Your task to perform on an android device: check android version Image 0: 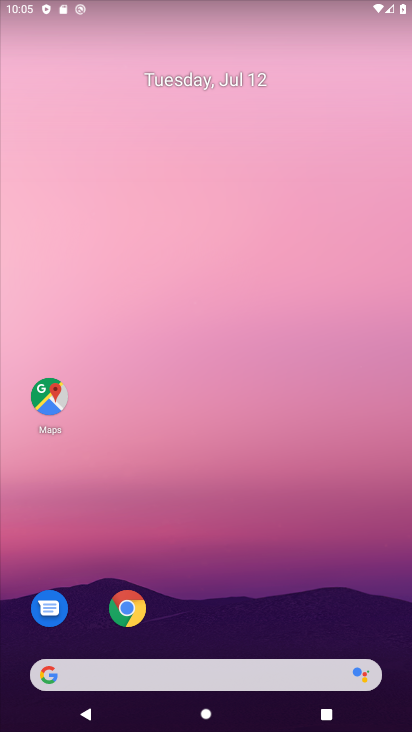
Step 0: drag from (261, 555) to (407, 0)
Your task to perform on an android device: check android version Image 1: 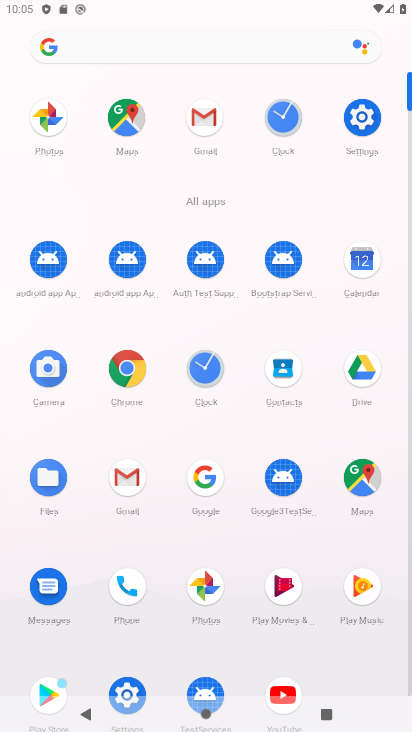
Step 1: click (370, 113)
Your task to perform on an android device: check android version Image 2: 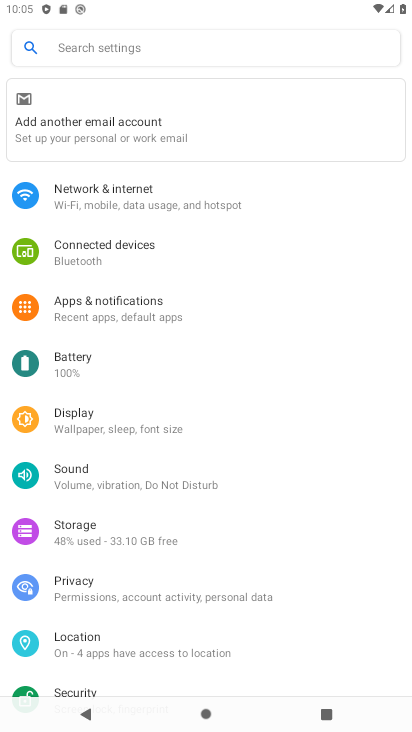
Step 2: drag from (209, 548) to (212, 98)
Your task to perform on an android device: check android version Image 3: 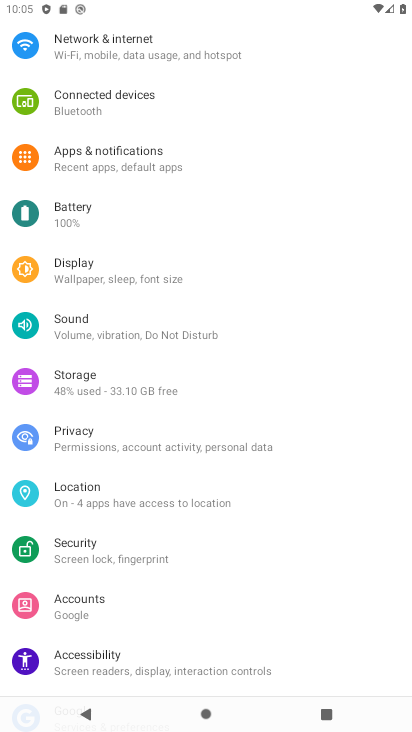
Step 3: drag from (129, 641) to (197, 139)
Your task to perform on an android device: check android version Image 4: 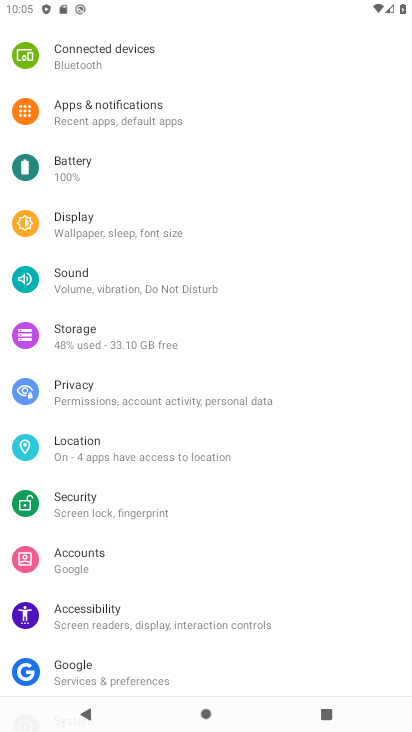
Step 4: drag from (103, 598) to (158, 241)
Your task to perform on an android device: check android version Image 5: 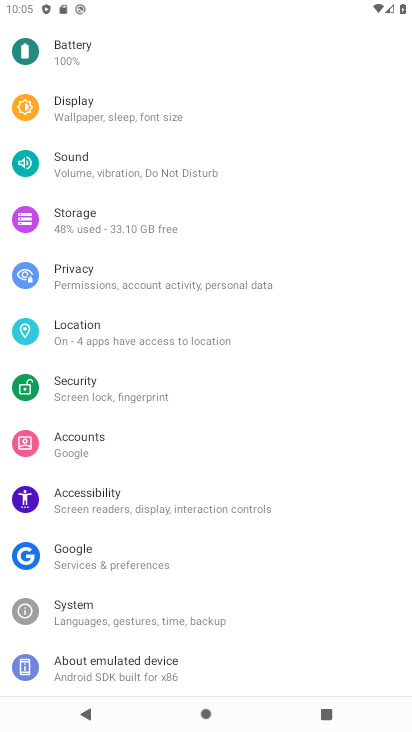
Step 5: click (96, 674)
Your task to perform on an android device: check android version Image 6: 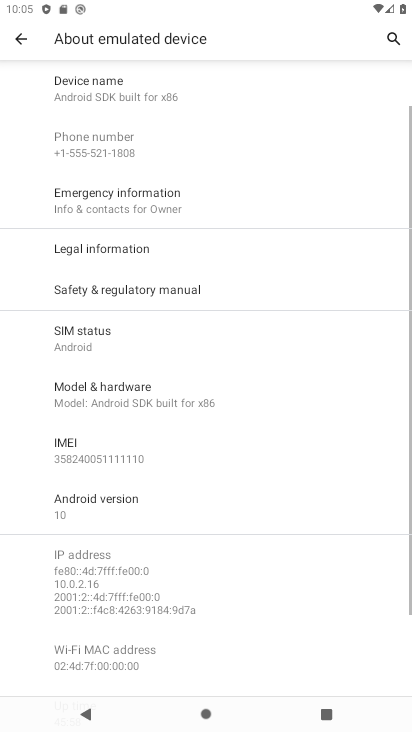
Step 6: click (228, 512)
Your task to perform on an android device: check android version Image 7: 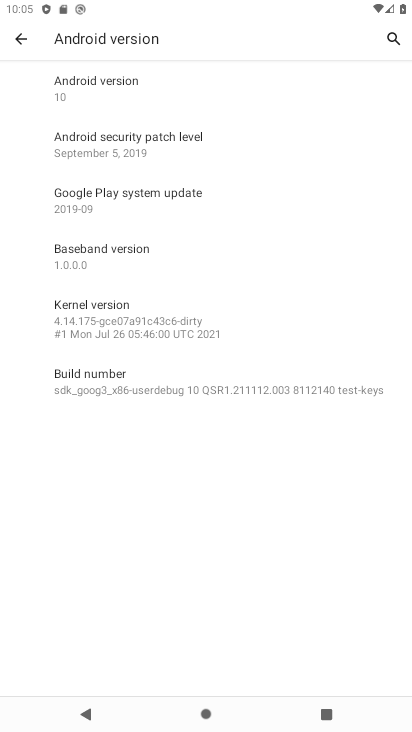
Step 7: click (131, 89)
Your task to perform on an android device: check android version Image 8: 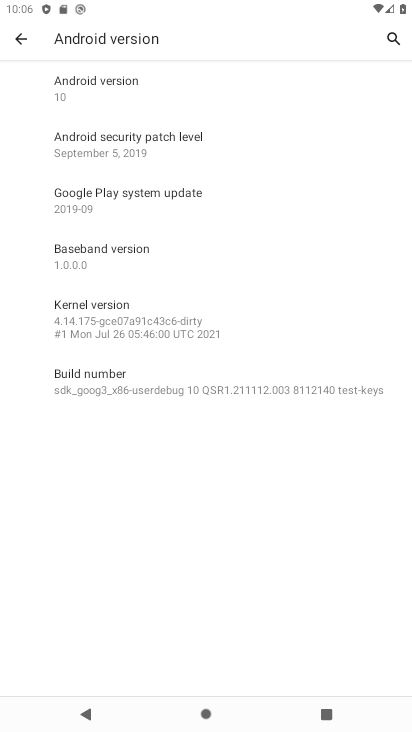
Step 8: task complete